Your task to perform on an android device: Search for sushi restaurants on Maps Image 0: 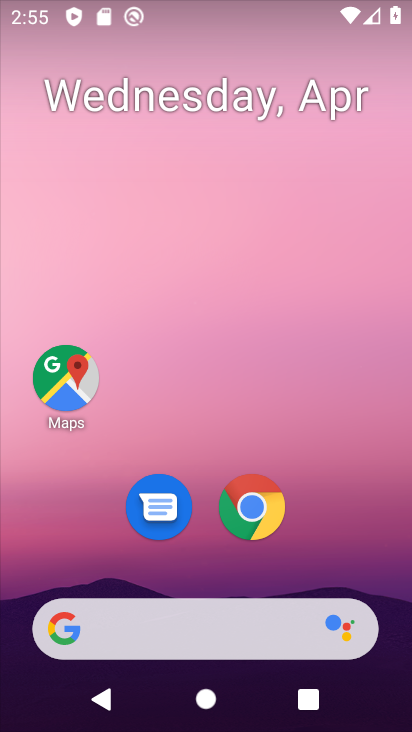
Step 0: drag from (312, 299) to (280, 97)
Your task to perform on an android device: Search for sushi restaurants on Maps Image 1: 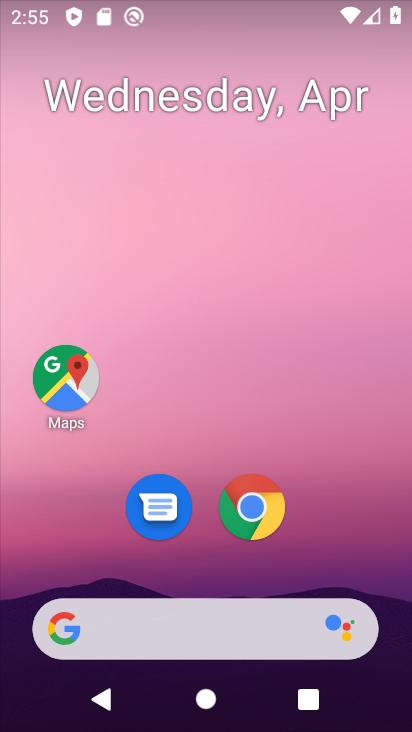
Step 1: click (247, 523)
Your task to perform on an android device: Search for sushi restaurants on Maps Image 2: 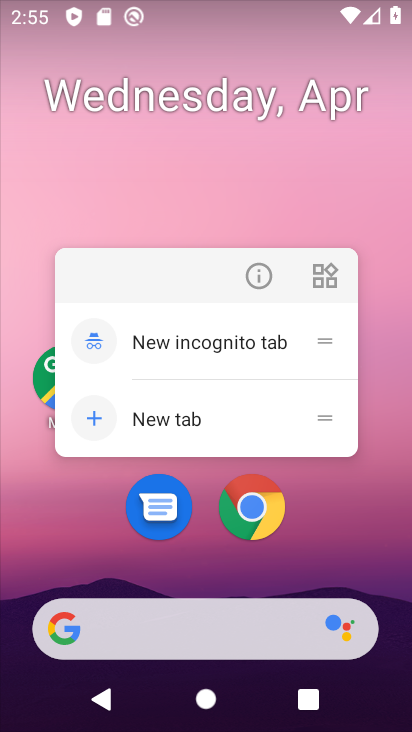
Step 2: click (334, 562)
Your task to perform on an android device: Search for sushi restaurants on Maps Image 3: 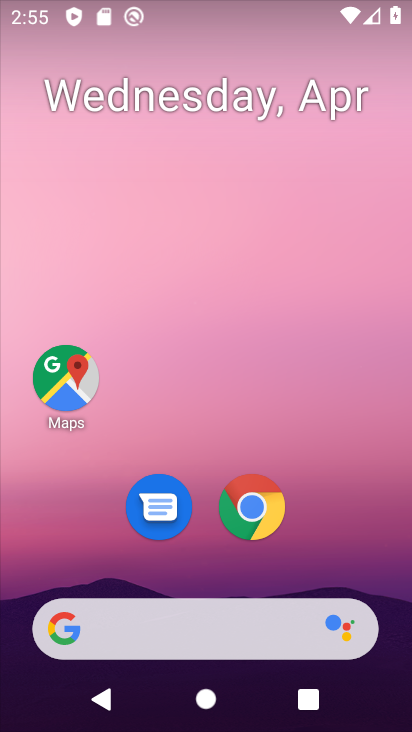
Step 3: click (47, 401)
Your task to perform on an android device: Search for sushi restaurants on Maps Image 4: 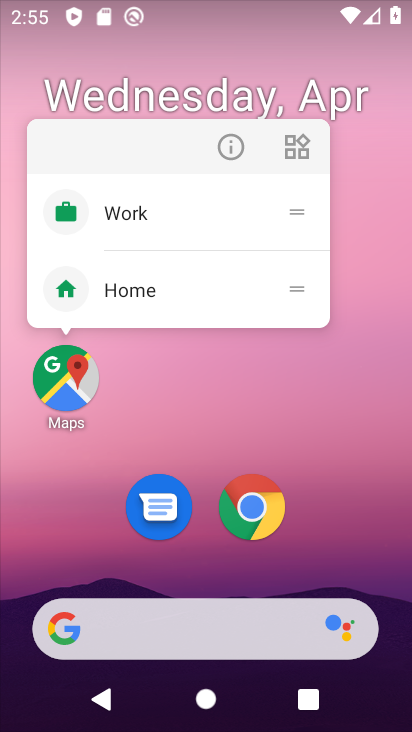
Step 4: click (63, 398)
Your task to perform on an android device: Search for sushi restaurants on Maps Image 5: 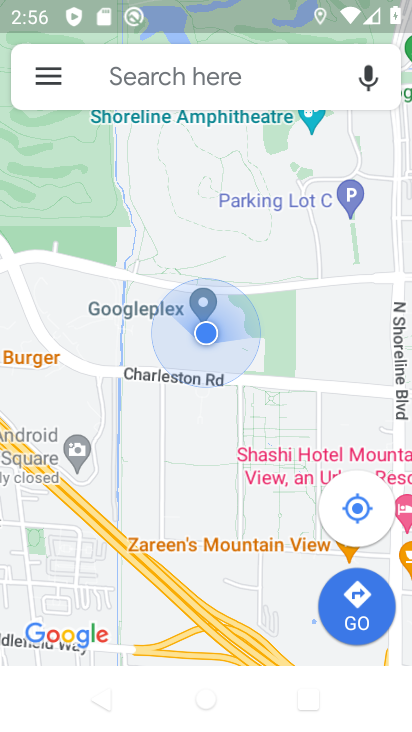
Step 5: click (133, 79)
Your task to perform on an android device: Search for sushi restaurants on Maps Image 6: 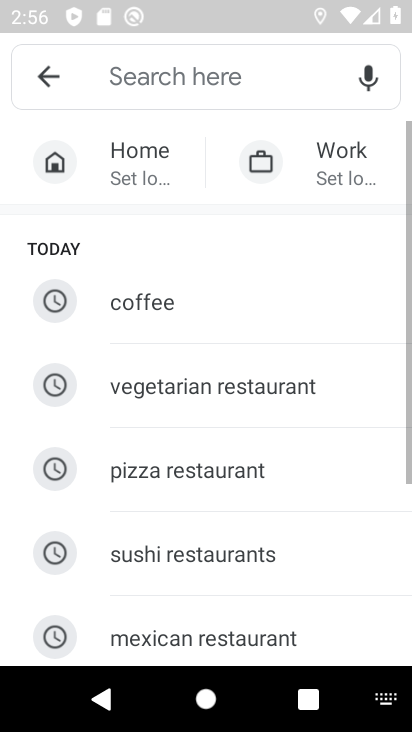
Step 6: click (131, 72)
Your task to perform on an android device: Search for sushi restaurants on Maps Image 7: 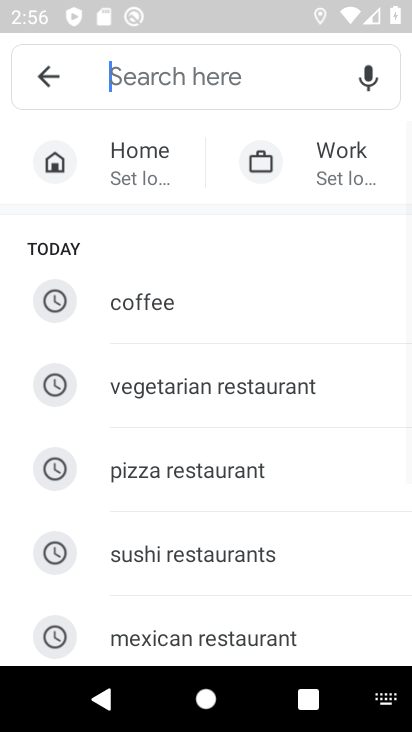
Step 7: click (131, 72)
Your task to perform on an android device: Search for sushi restaurants on Maps Image 8: 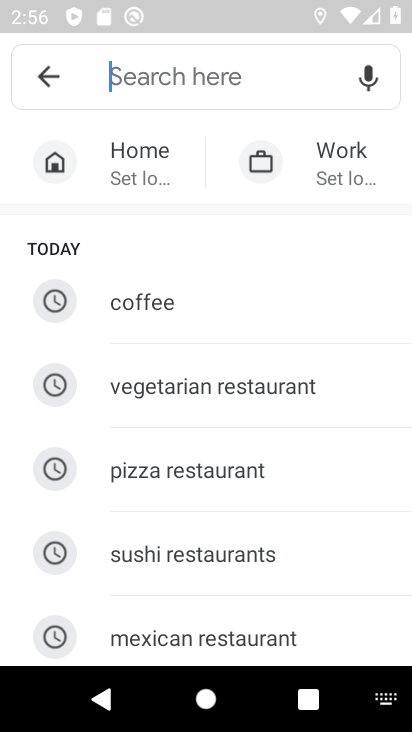
Step 8: type "sushi restaurants"
Your task to perform on an android device: Search for sushi restaurants on Maps Image 9: 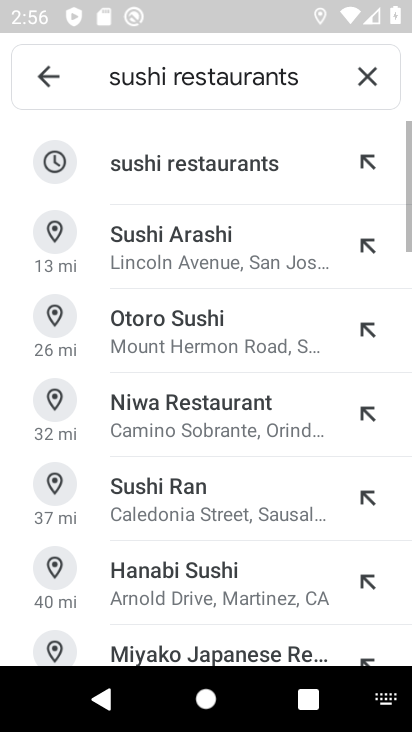
Step 9: click (183, 161)
Your task to perform on an android device: Search for sushi restaurants on Maps Image 10: 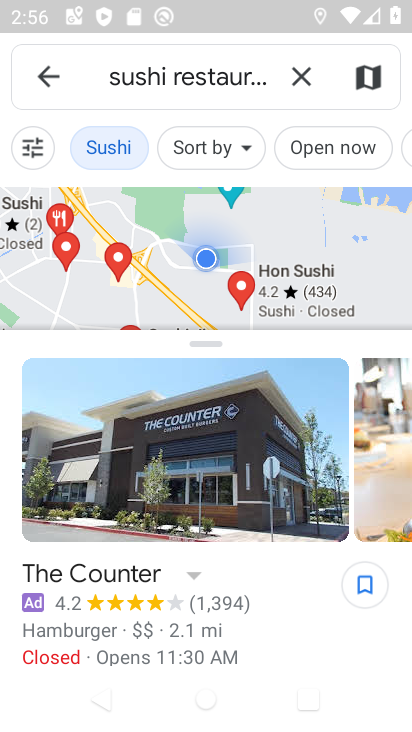
Step 10: task complete